Your task to perform on an android device: Go to Wikipedia Image 0: 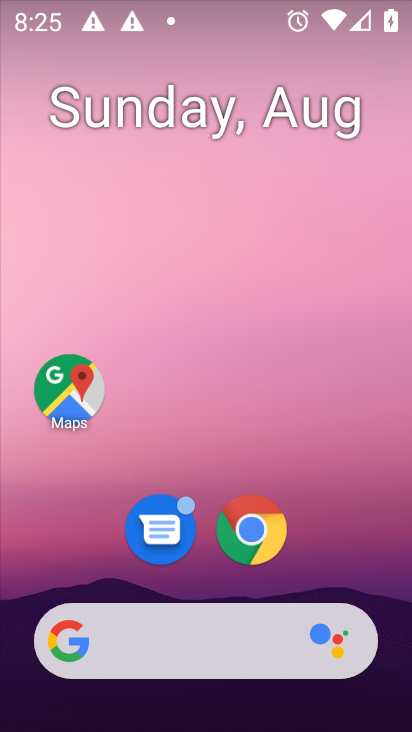
Step 0: click (257, 539)
Your task to perform on an android device: Go to Wikipedia Image 1: 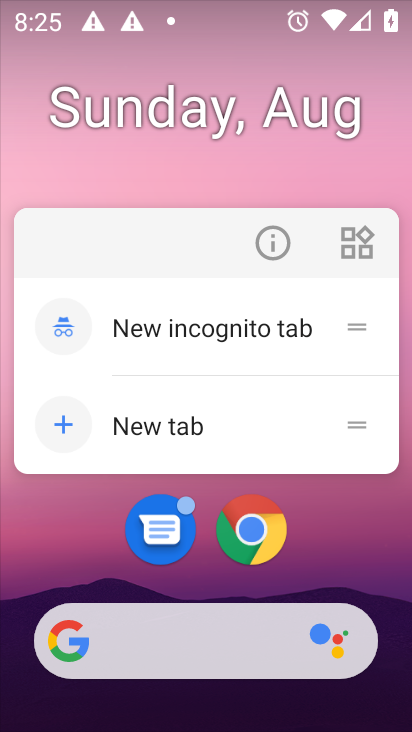
Step 1: click (255, 532)
Your task to perform on an android device: Go to Wikipedia Image 2: 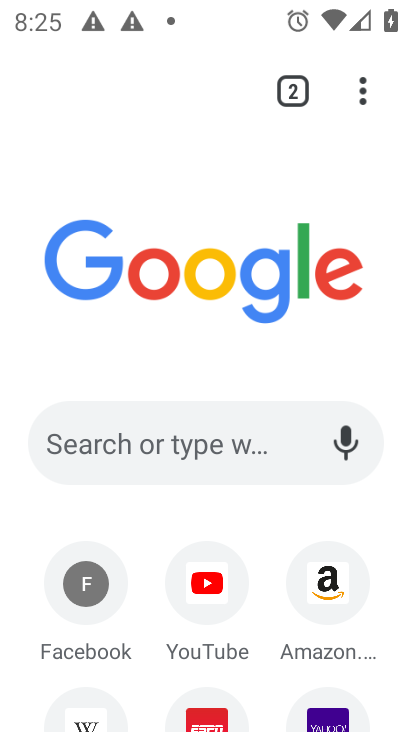
Step 2: click (91, 716)
Your task to perform on an android device: Go to Wikipedia Image 3: 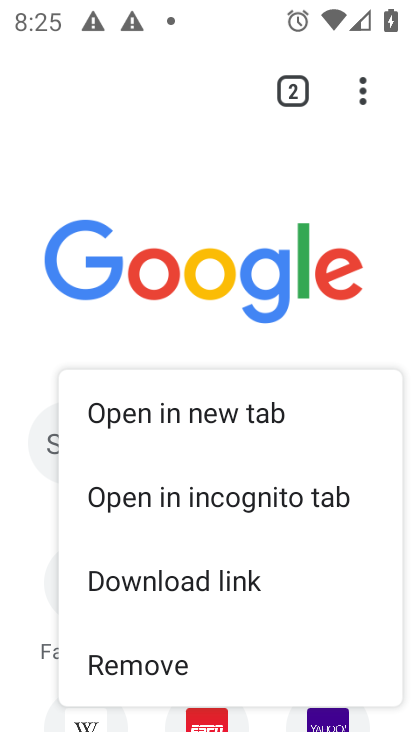
Step 3: click (24, 702)
Your task to perform on an android device: Go to Wikipedia Image 4: 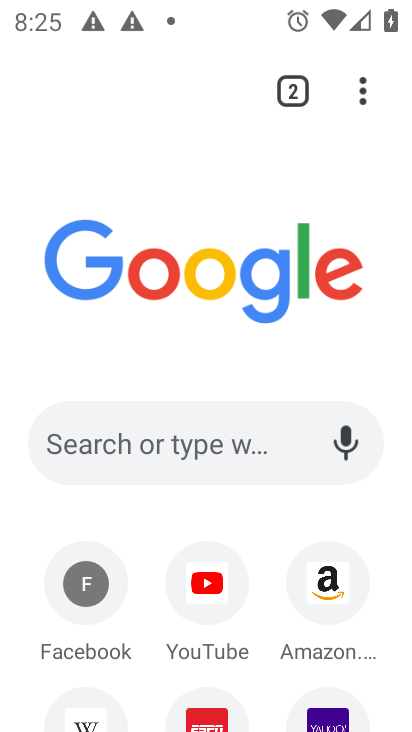
Step 4: drag from (96, 696) to (111, 601)
Your task to perform on an android device: Go to Wikipedia Image 5: 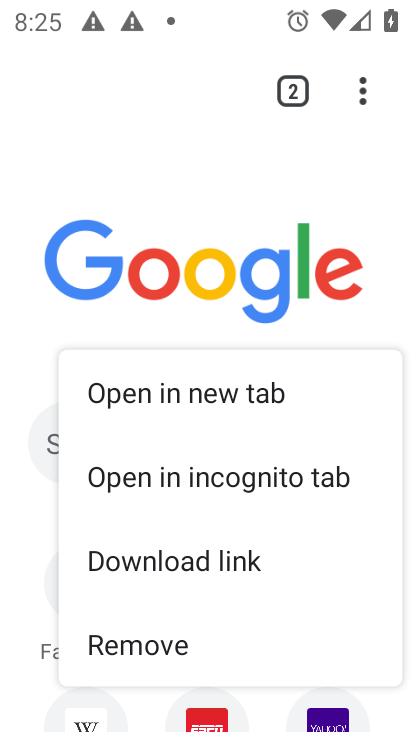
Step 5: drag from (2, 679) to (4, 484)
Your task to perform on an android device: Go to Wikipedia Image 6: 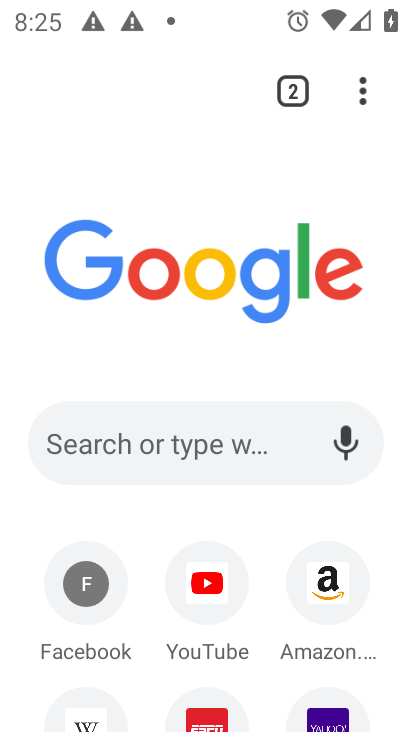
Step 6: drag from (27, 697) to (38, 480)
Your task to perform on an android device: Go to Wikipedia Image 7: 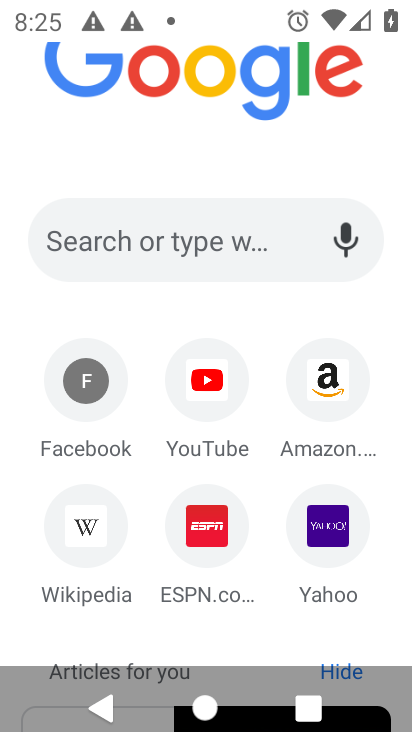
Step 7: click (77, 529)
Your task to perform on an android device: Go to Wikipedia Image 8: 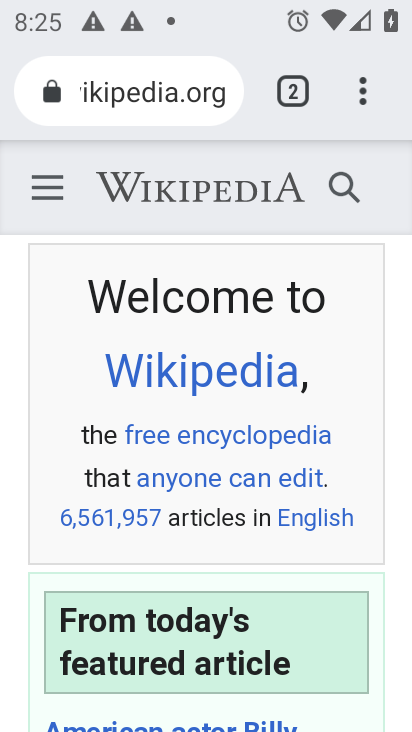
Step 8: task complete